Your task to perform on an android device: move a message to another label in the gmail app Image 0: 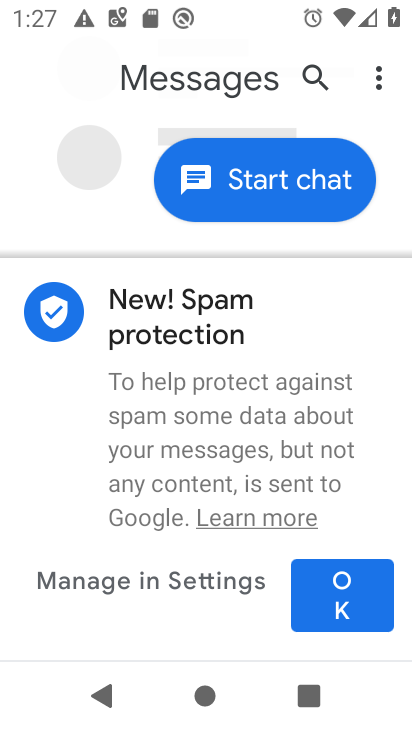
Step 0: press back button
Your task to perform on an android device: move a message to another label in the gmail app Image 1: 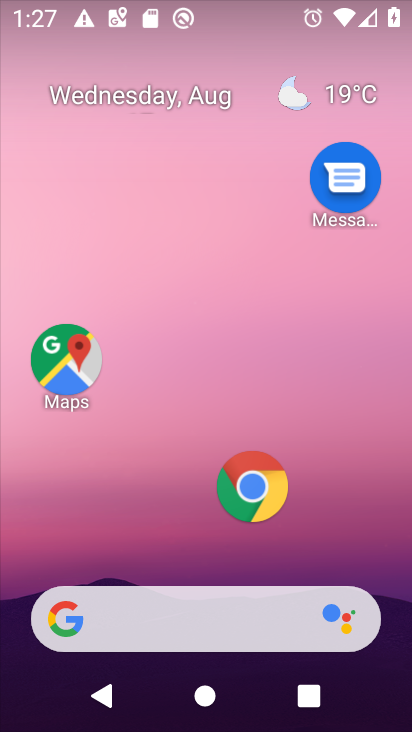
Step 1: drag from (149, 546) to (224, 0)
Your task to perform on an android device: move a message to another label in the gmail app Image 2: 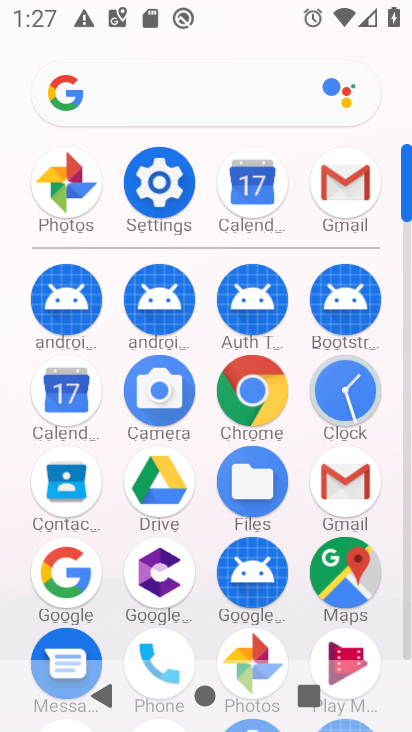
Step 2: click (354, 188)
Your task to perform on an android device: move a message to another label in the gmail app Image 3: 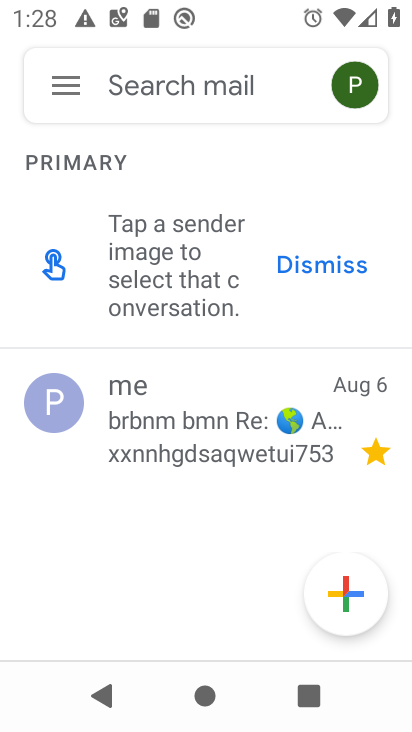
Step 3: click (225, 440)
Your task to perform on an android device: move a message to another label in the gmail app Image 4: 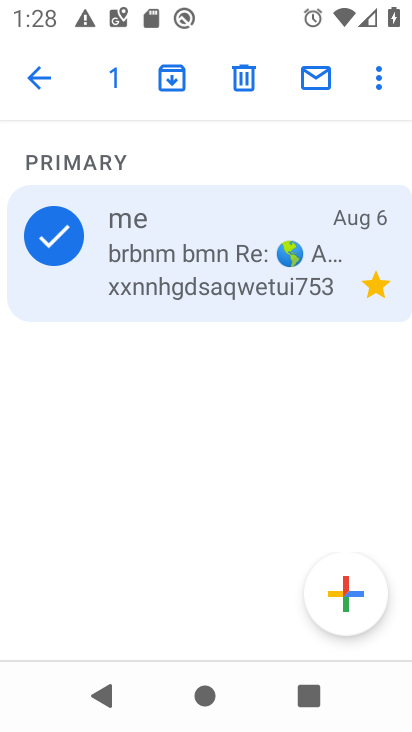
Step 4: click (376, 88)
Your task to perform on an android device: move a message to another label in the gmail app Image 5: 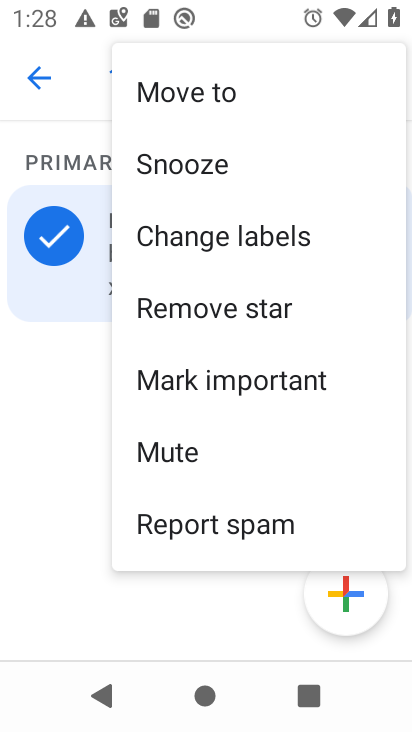
Step 5: click (226, 94)
Your task to perform on an android device: move a message to another label in the gmail app Image 6: 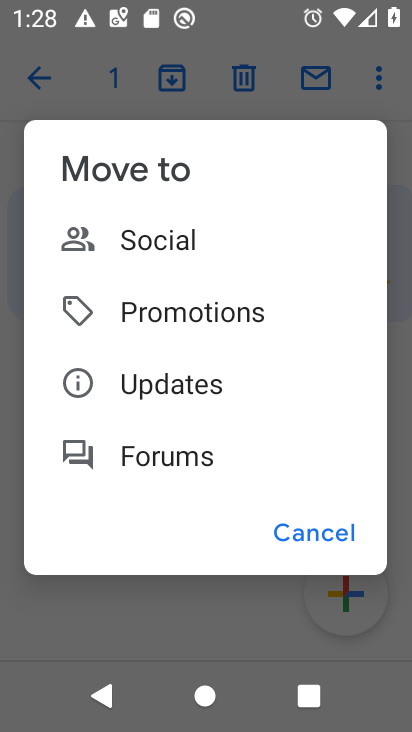
Step 6: click (318, 537)
Your task to perform on an android device: move a message to another label in the gmail app Image 7: 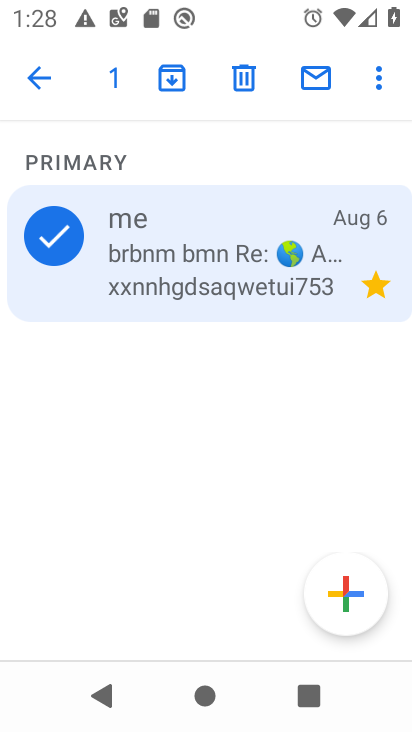
Step 7: click (378, 74)
Your task to perform on an android device: move a message to another label in the gmail app Image 8: 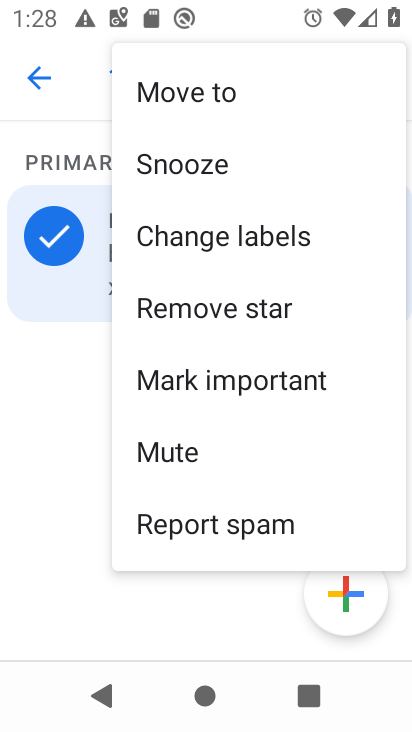
Step 8: click (223, 235)
Your task to perform on an android device: move a message to another label in the gmail app Image 9: 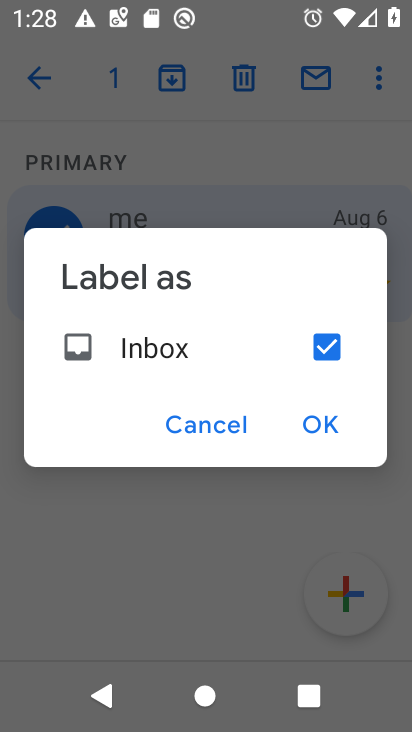
Step 9: click (307, 413)
Your task to perform on an android device: move a message to another label in the gmail app Image 10: 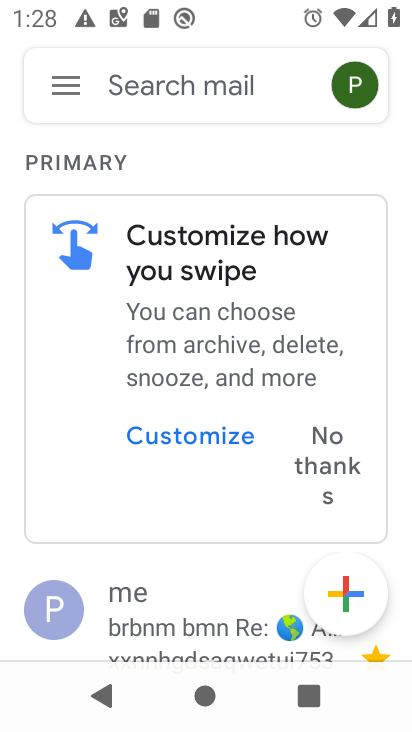
Step 10: task complete